Your task to perform on an android device: Do I have any events today? Image 0: 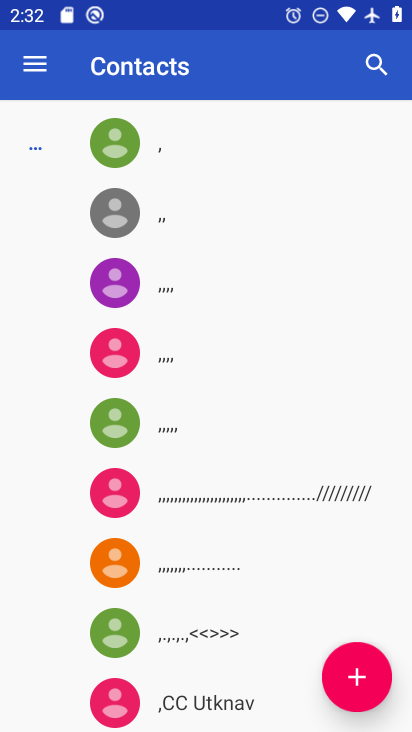
Step 0: press home button
Your task to perform on an android device: Do I have any events today? Image 1: 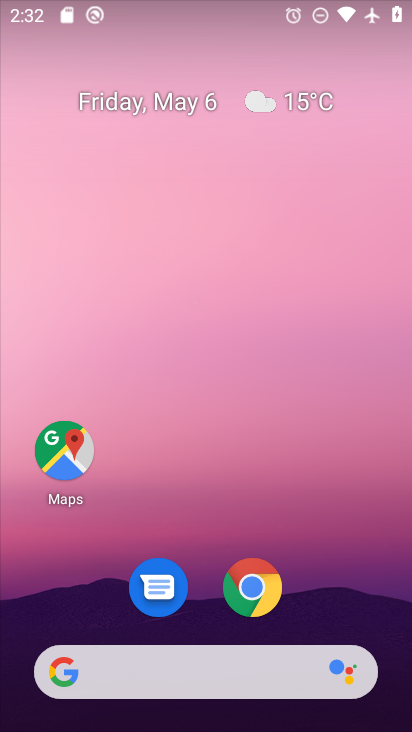
Step 1: drag from (332, 580) to (198, 75)
Your task to perform on an android device: Do I have any events today? Image 2: 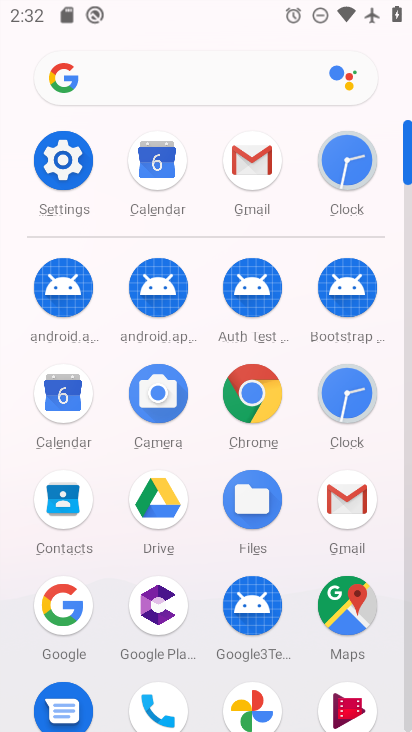
Step 2: click (57, 407)
Your task to perform on an android device: Do I have any events today? Image 3: 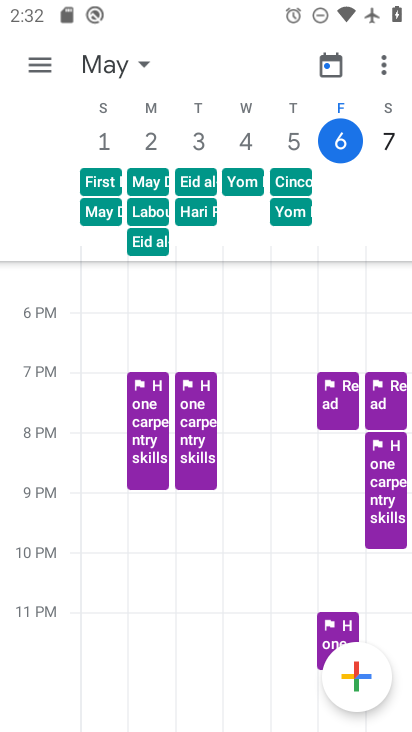
Step 3: task complete